Your task to perform on an android device: toggle notifications settings in the gmail app Image 0: 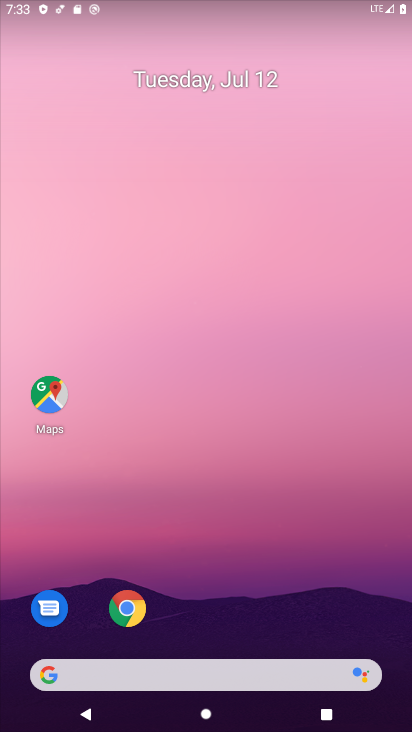
Step 0: drag from (228, 670) to (338, 357)
Your task to perform on an android device: toggle notifications settings in the gmail app Image 1: 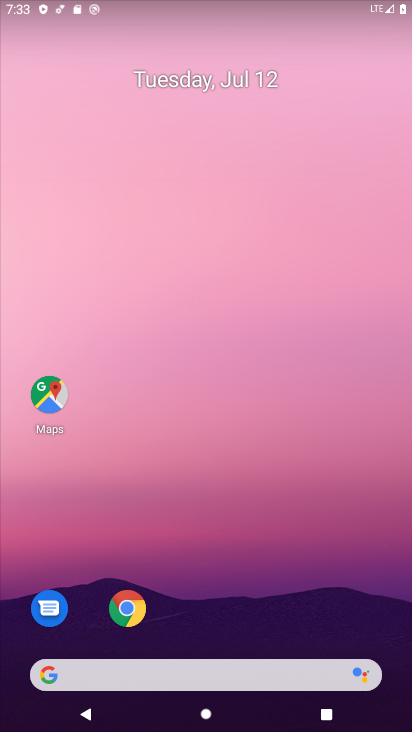
Step 1: drag from (140, 675) to (289, 283)
Your task to perform on an android device: toggle notifications settings in the gmail app Image 2: 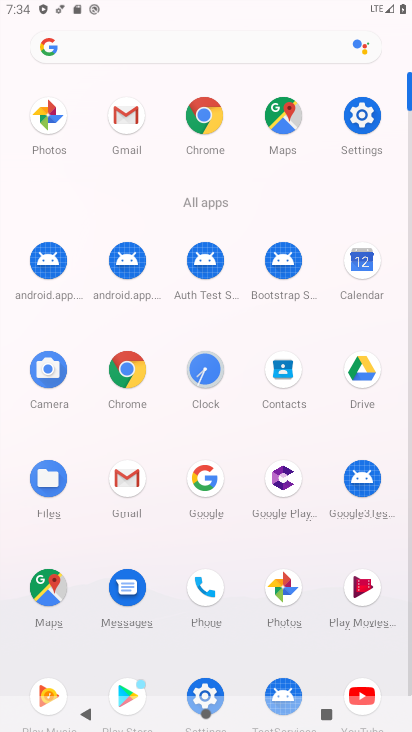
Step 2: click (125, 109)
Your task to perform on an android device: toggle notifications settings in the gmail app Image 3: 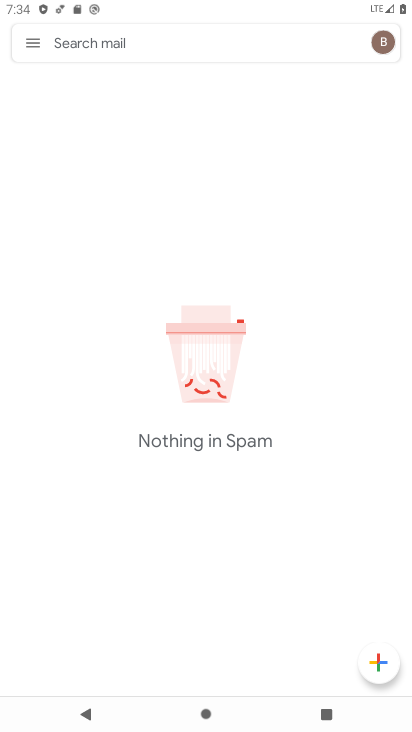
Step 3: click (31, 44)
Your task to perform on an android device: toggle notifications settings in the gmail app Image 4: 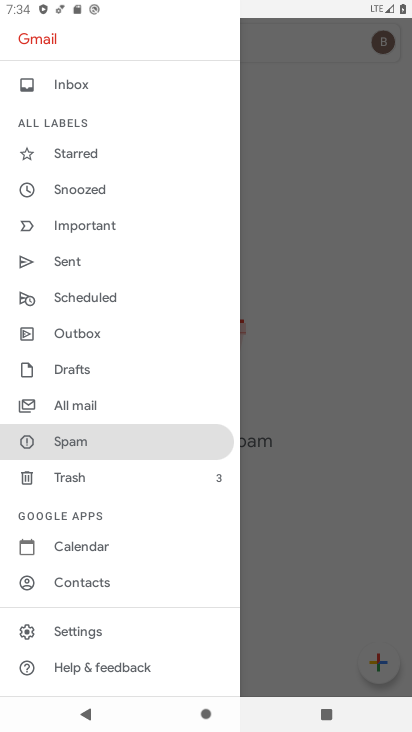
Step 4: click (91, 631)
Your task to perform on an android device: toggle notifications settings in the gmail app Image 5: 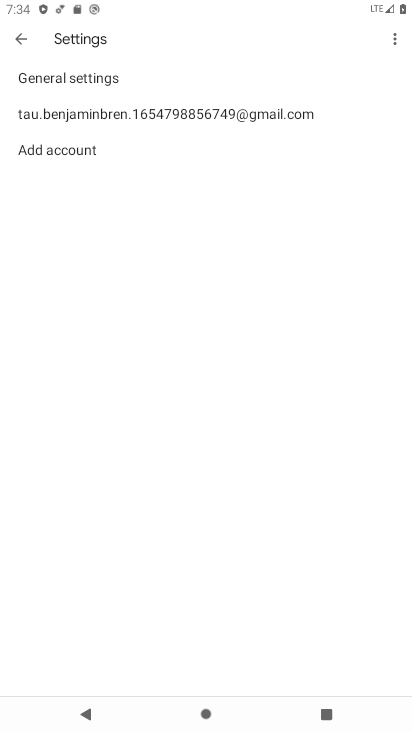
Step 5: click (269, 117)
Your task to perform on an android device: toggle notifications settings in the gmail app Image 6: 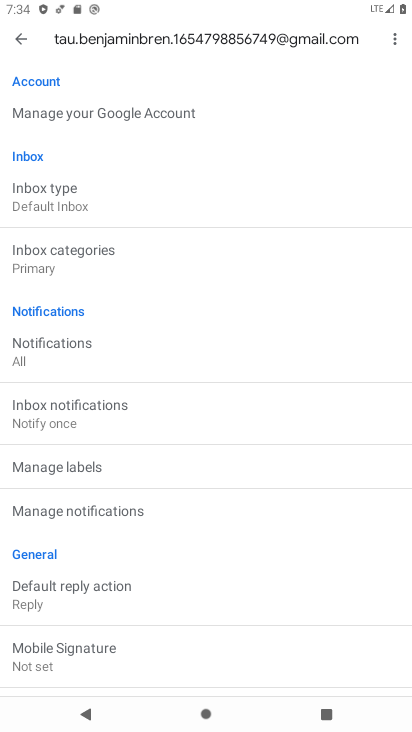
Step 6: click (72, 338)
Your task to perform on an android device: toggle notifications settings in the gmail app Image 7: 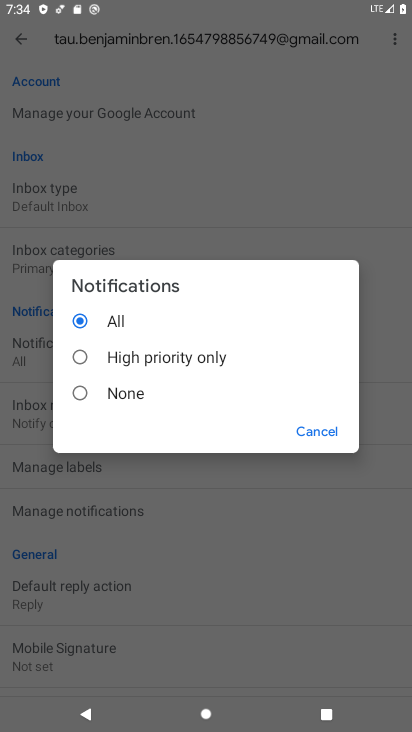
Step 7: click (72, 394)
Your task to perform on an android device: toggle notifications settings in the gmail app Image 8: 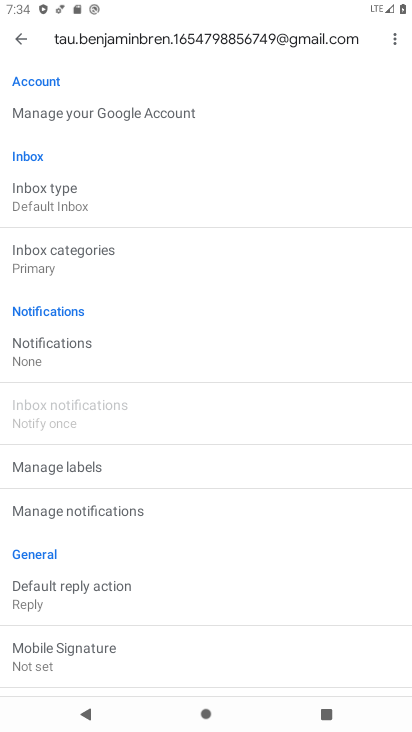
Step 8: task complete